Your task to perform on an android device: find photos in the google photos app Image 0: 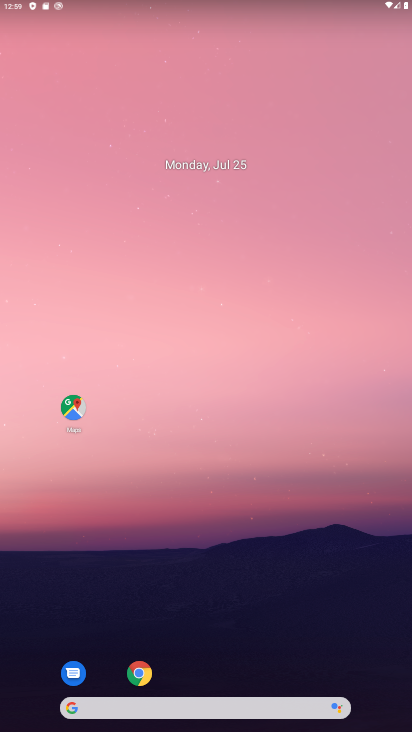
Step 0: drag from (383, 690) to (365, 80)
Your task to perform on an android device: find photos in the google photos app Image 1: 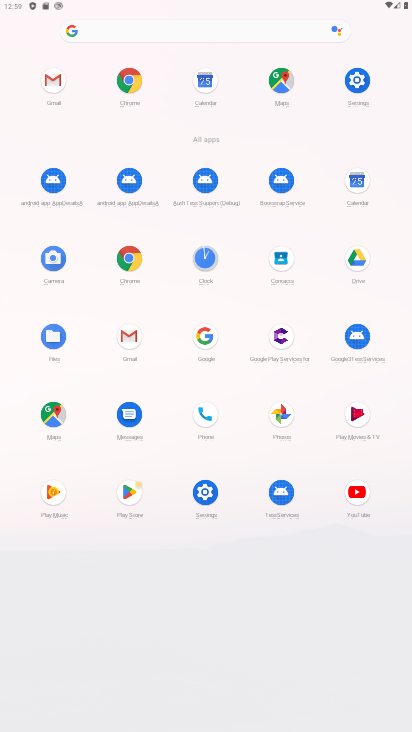
Step 1: click (281, 412)
Your task to perform on an android device: find photos in the google photos app Image 2: 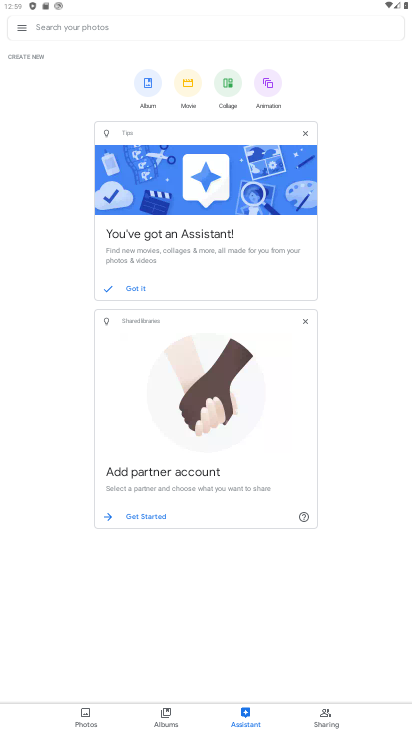
Step 2: click (80, 712)
Your task to perform on an android device: find photos in the google photos app Image 3: 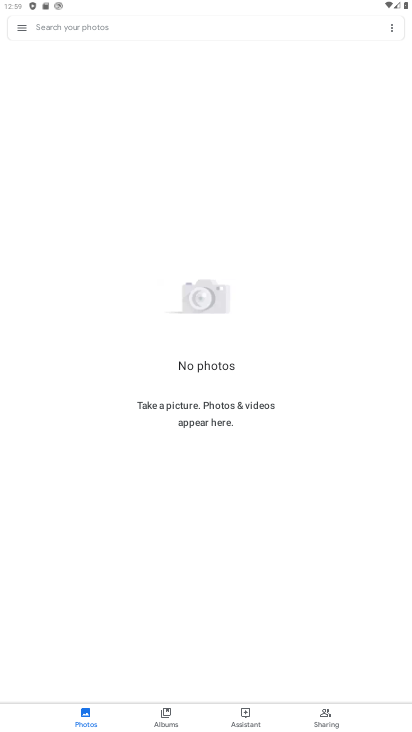
Step 3: task complete